Your task to perform on an android device: What's the weather today? Image 0: 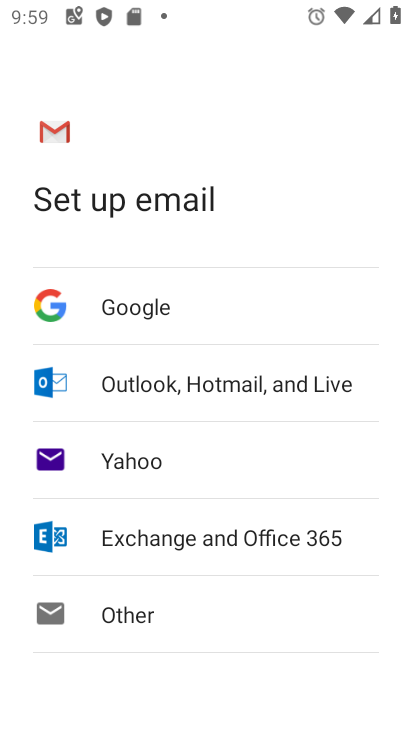
Step 0: press home button
Your task to perform on an android device: What's the weather today? Image 1: 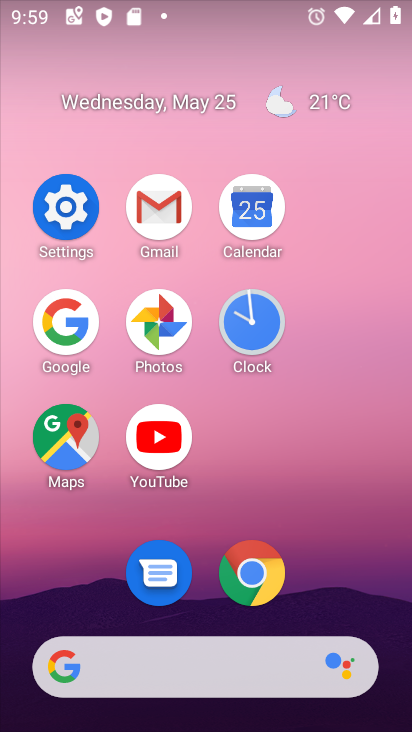
Step 1: click (69, 330)
Your task to perform on an android device: What's the weather today? Image 2: 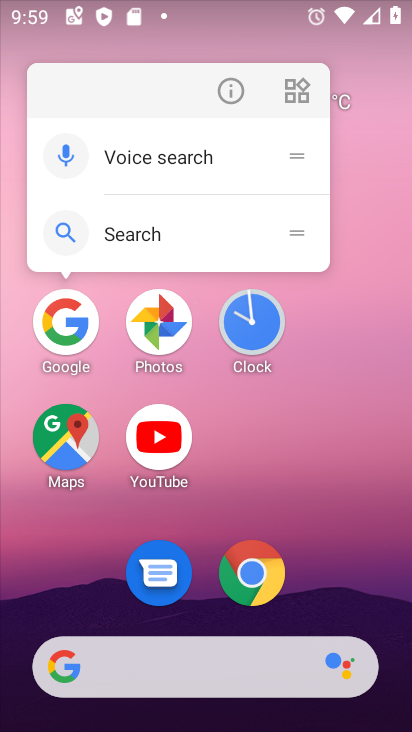
Step 2: click (68, 330)
Your task to perform on an android device: What's the weather today? Image 3: 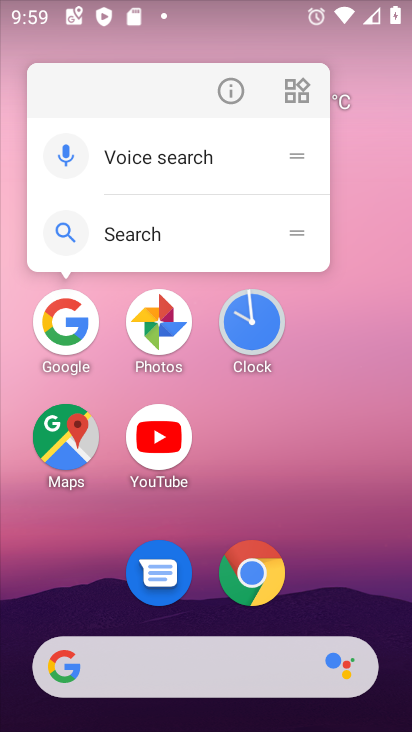
Step 3: click (68, 330)
Your task to perform on an android device: What's the weather today? Image 4: 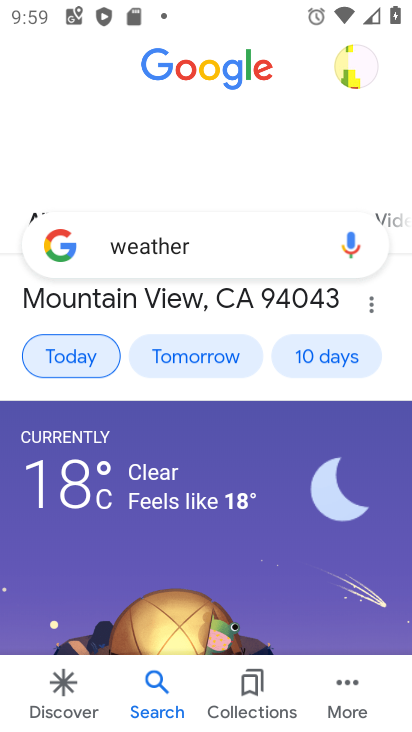
Step 4: task complete